Your task to perform on an android device: open chrome privacy settings Image 0: 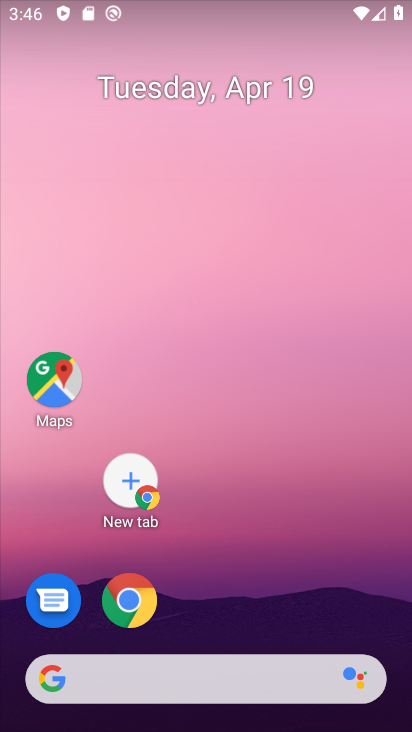
Step 0: click (135, 599)
Your task to perform on an android device: open chrome privacy settings Image 1: 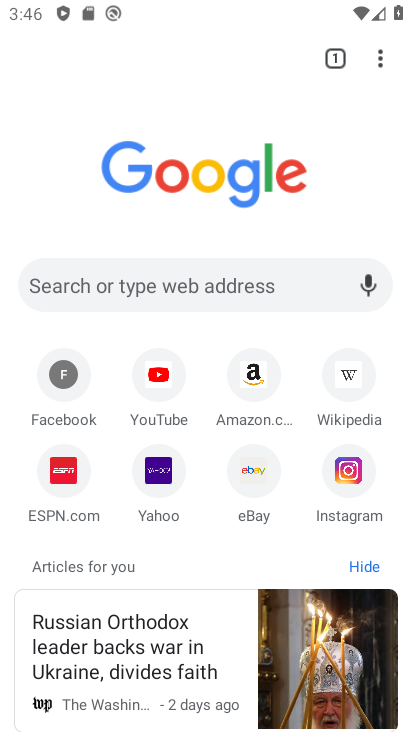
Step 1: click (372, 62)
Your task to perform on an android device: open chrome privacy settings Image 2: 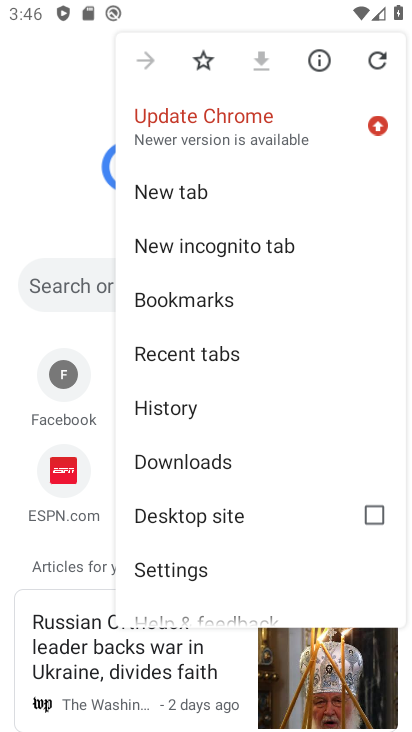
Step 2: click (196, 575)
Your task to perform on an android device: open chrome privacy settings Image 3: 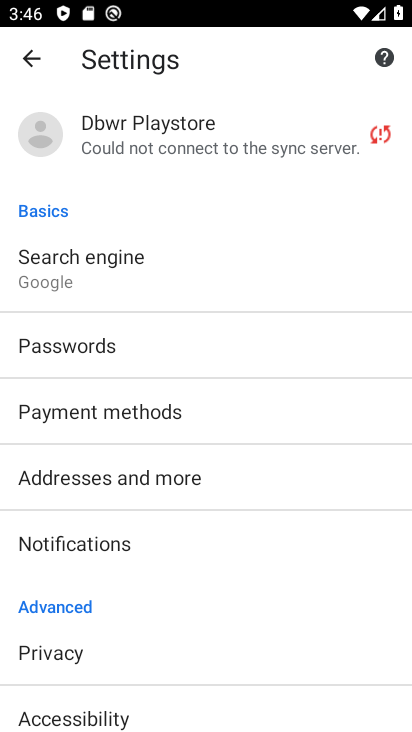
Step 3: click (82, 648)
Your task to perform on an android device: open chrome privacy settings Image 4: 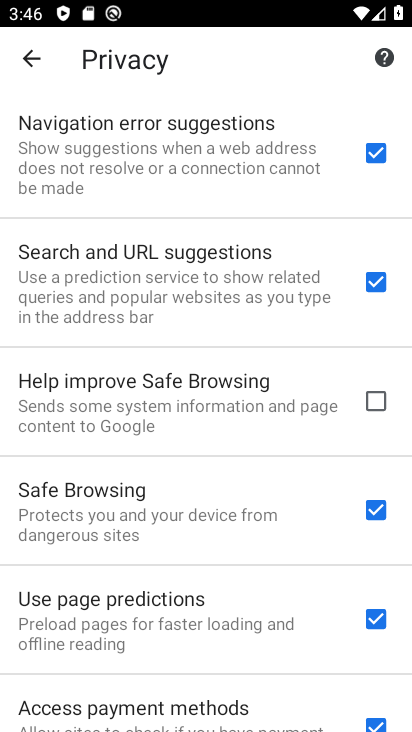
Step 4: task complete